Your task to perform on an android device: delete a single message in the gmail app Image 0: 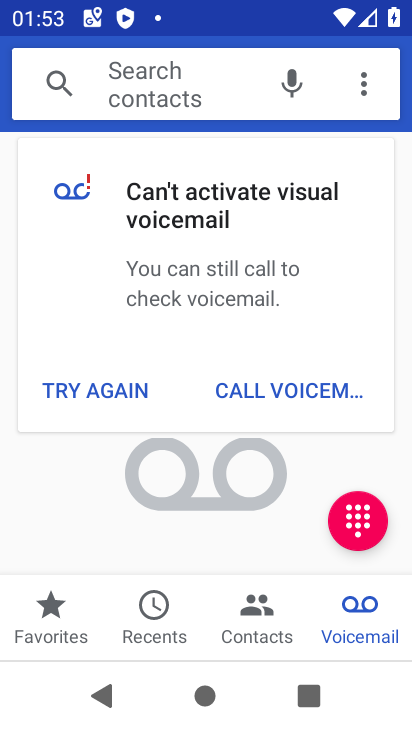
Step 0: press home button
Your task to perform on an android device: delete a single message in the gmail app Image 1: 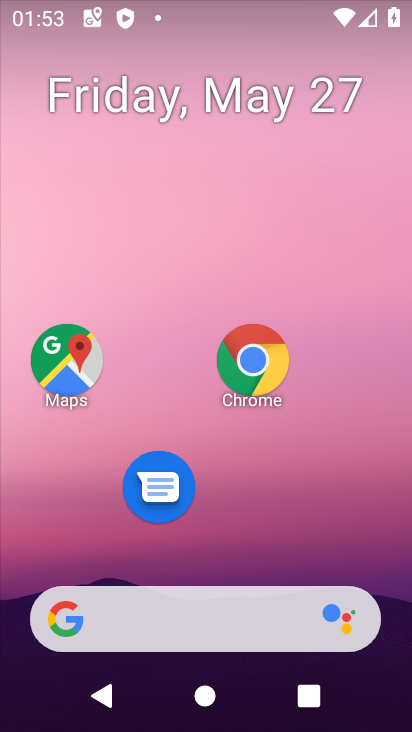
Step 1: drag from (251, 493) to (297, 58)
Your task to perform on an android device: delete a single message in the gmail app Image 2: 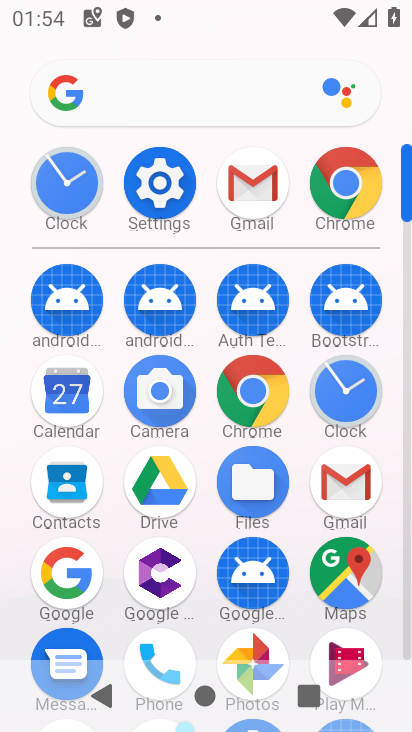
Step 2: click (253, 190)
Your task to perform on an android device: delete a single message in the gmail app Image 3: 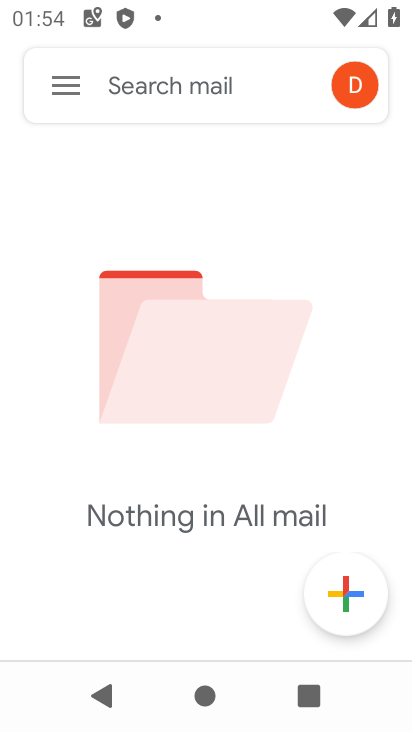
Step 3: task complete